Your task to perform on an android device: Find coffee shops on Maps Image 0: 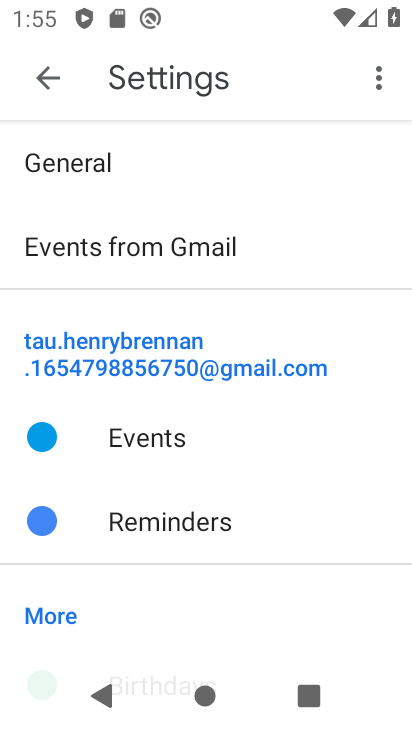
Step 0: press home button
Your task to perform on an android device: Find coffee shops on Maps Image 1: 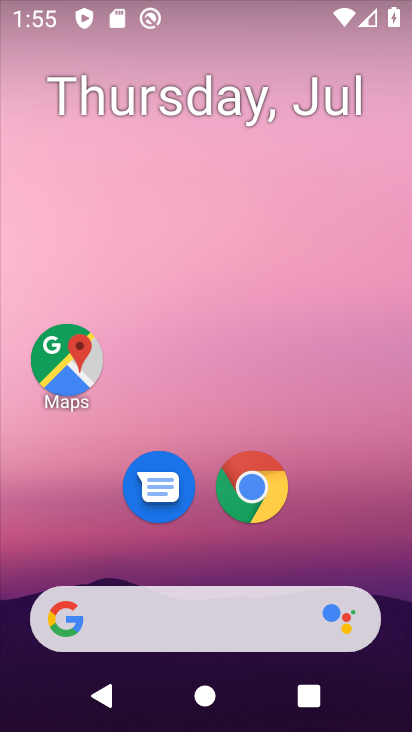
Step 1: drag from (362, 535) to (360, 147)
Your task to perform on an android device: Find coffee shops on Maps Image 2: 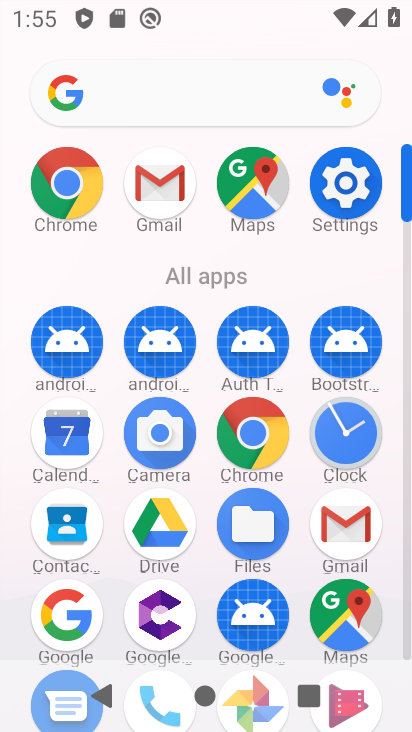
Step 2: click (349, 610)
Your task to perform on an android device: Find coffee shops on Maps Image 3: 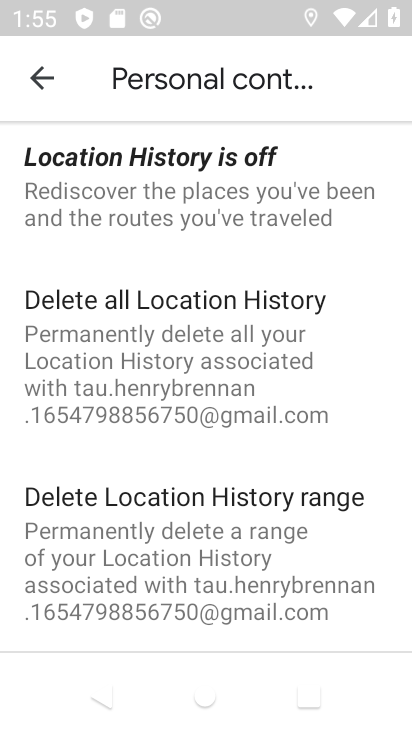
Step 3: press back button
Your task to perform on an android device: Find coffee shops on Maps Image 4: 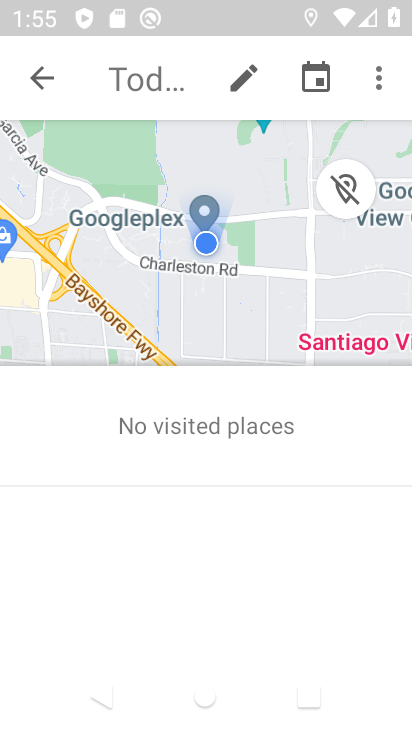
Step 4: press back button
Your task to perform on an android device: Find coffee shops on Maps Image 5: 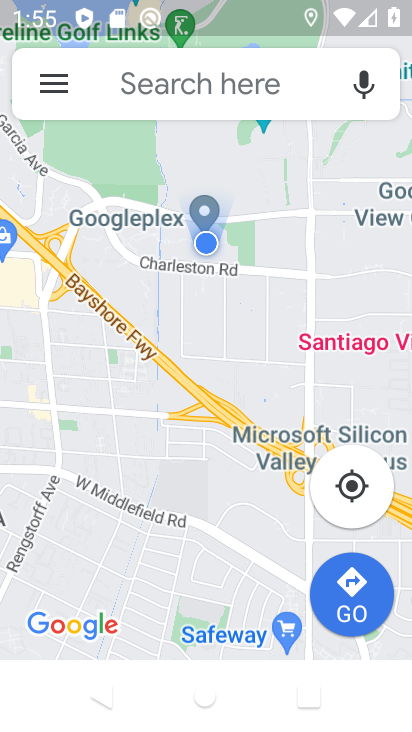
Step 5: click (237, 98)
Your task to perform on an android device: Find coffee shops on Maps Image 6: 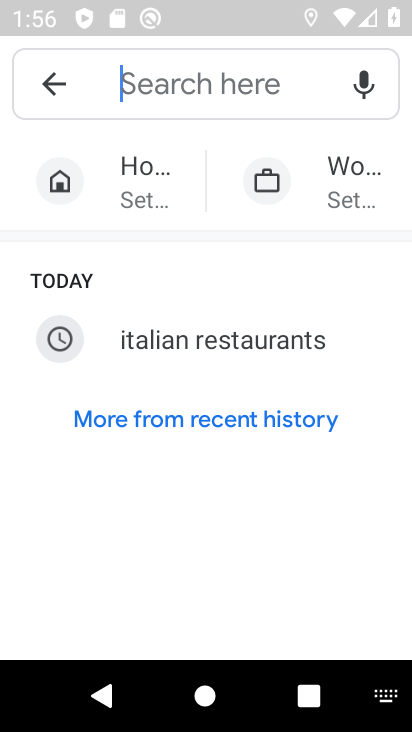
Step 6: type "coffee"
Your task to perform on an android device: Find coffee shops on Maps Image 7: 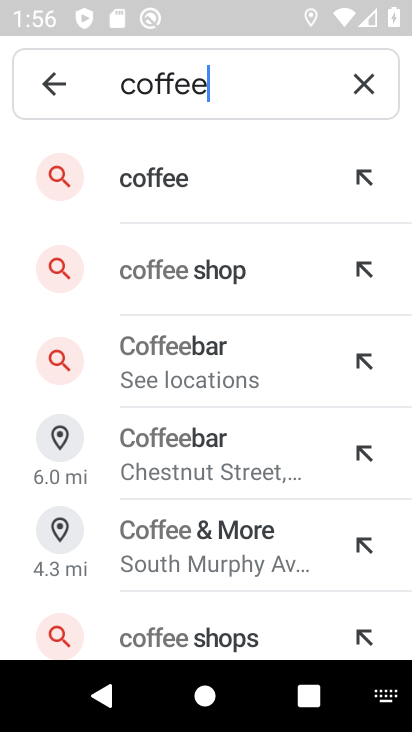
Step 7: click (238, 275)
Your task to perform on an android device: Find coffee shops on Maps Image 8: 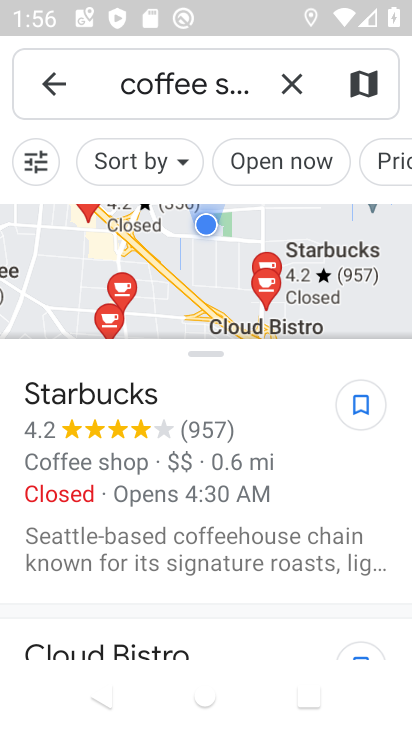
Step 8: task complete